Your task to perform on an android device: Google the capital of Venezuela Image 0: 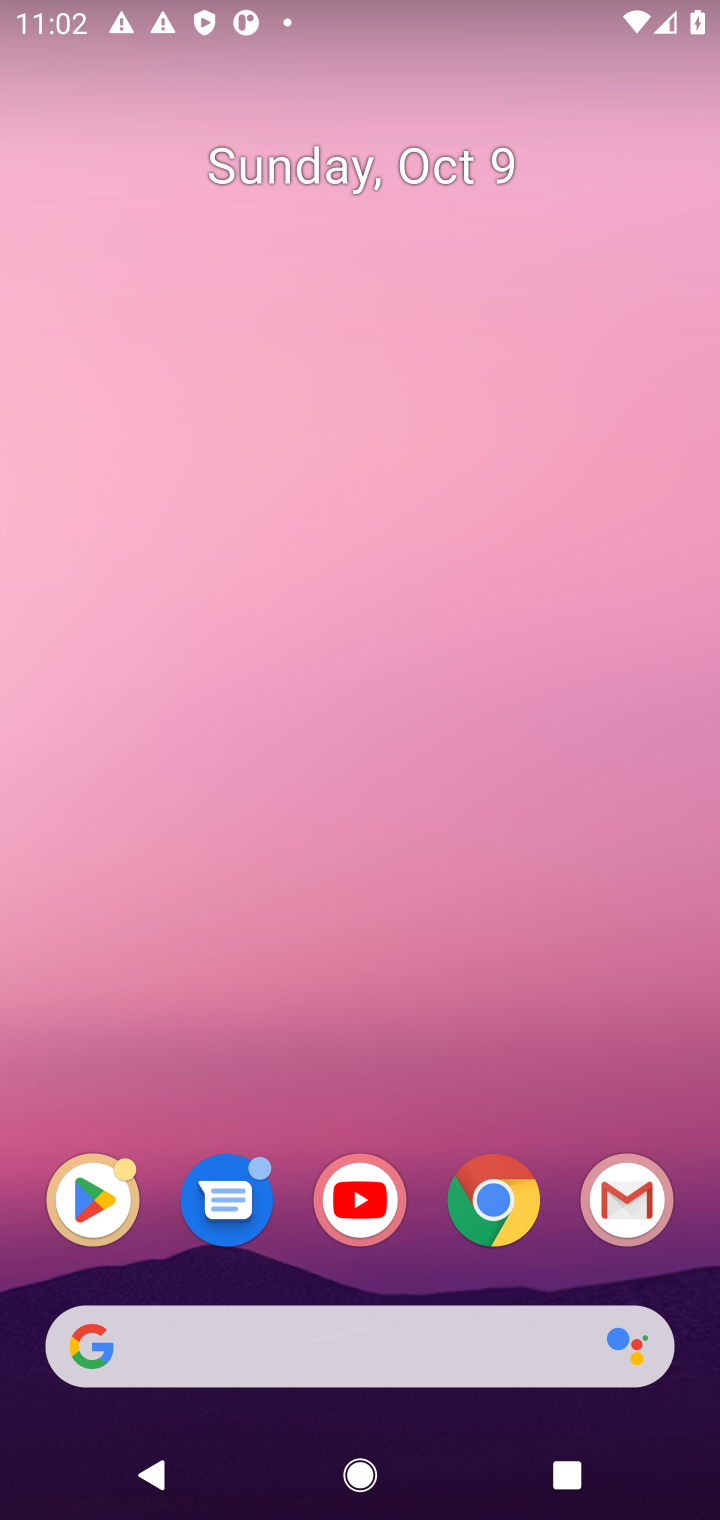
Step 0: click (479, 1196)
Your task to perform on an android device: Google the capital of Venezuela Image 1: 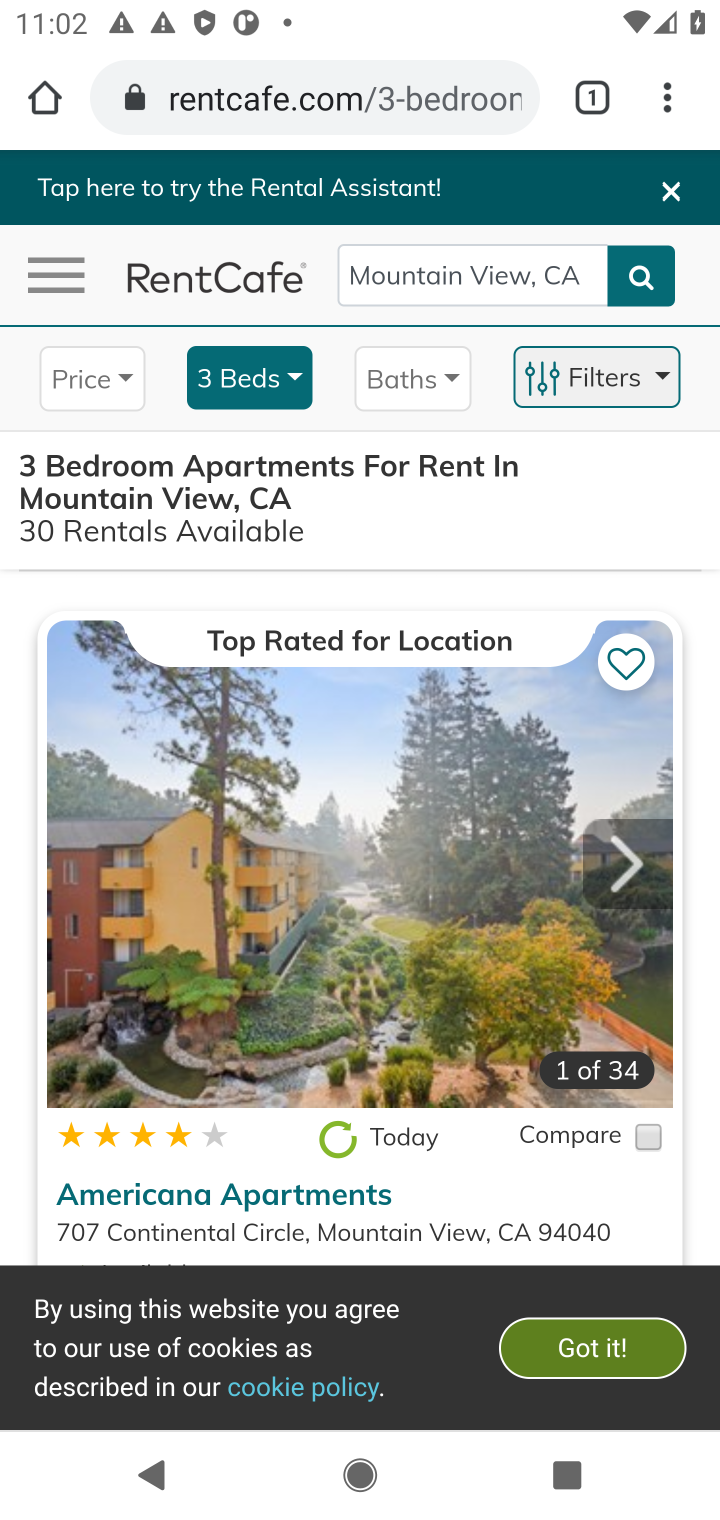
Step 1: click (360, 87)
Your task to perform on an android device: Google the capital of Venezuela Image 2: 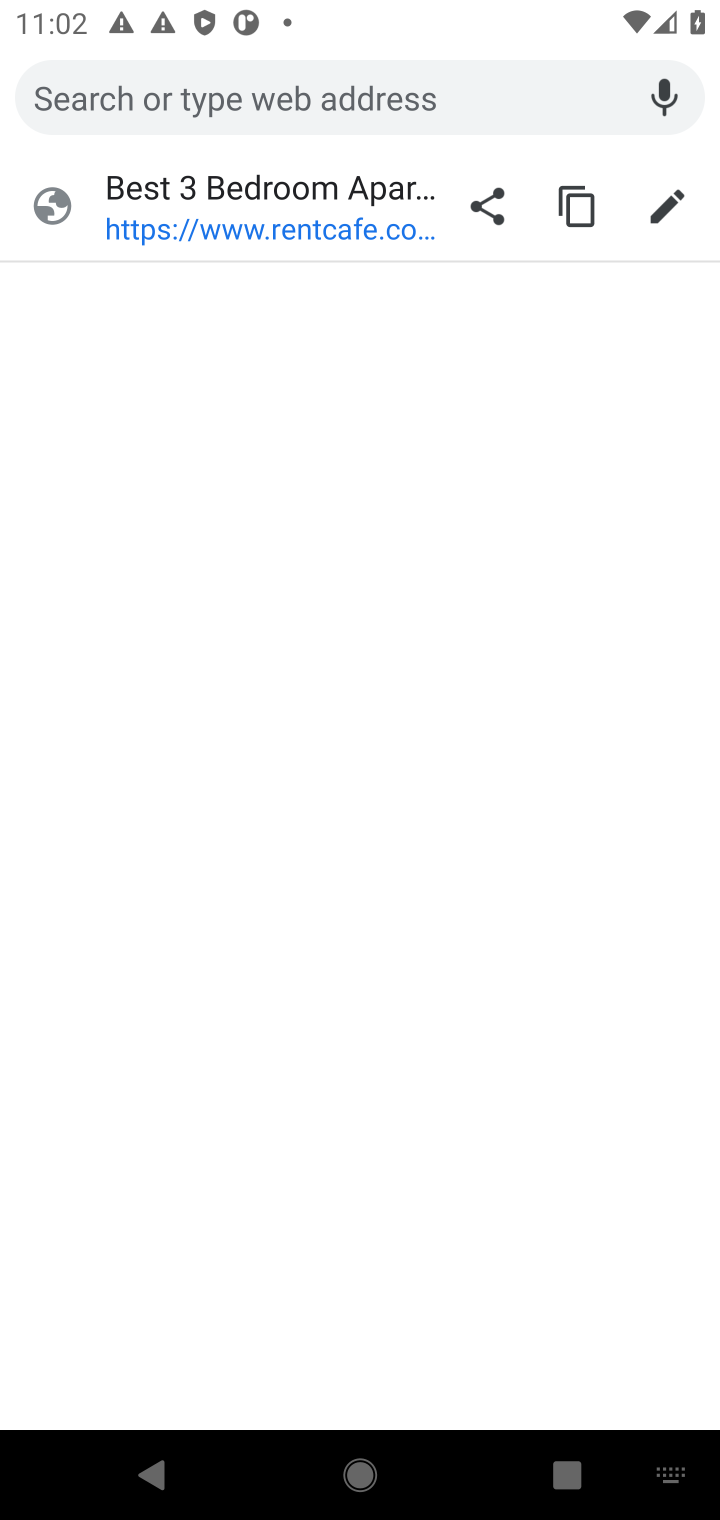
Step 2: type "capital of venezuela"
Your task to perform on an android device: Google the capital of Venezuela Image 3: 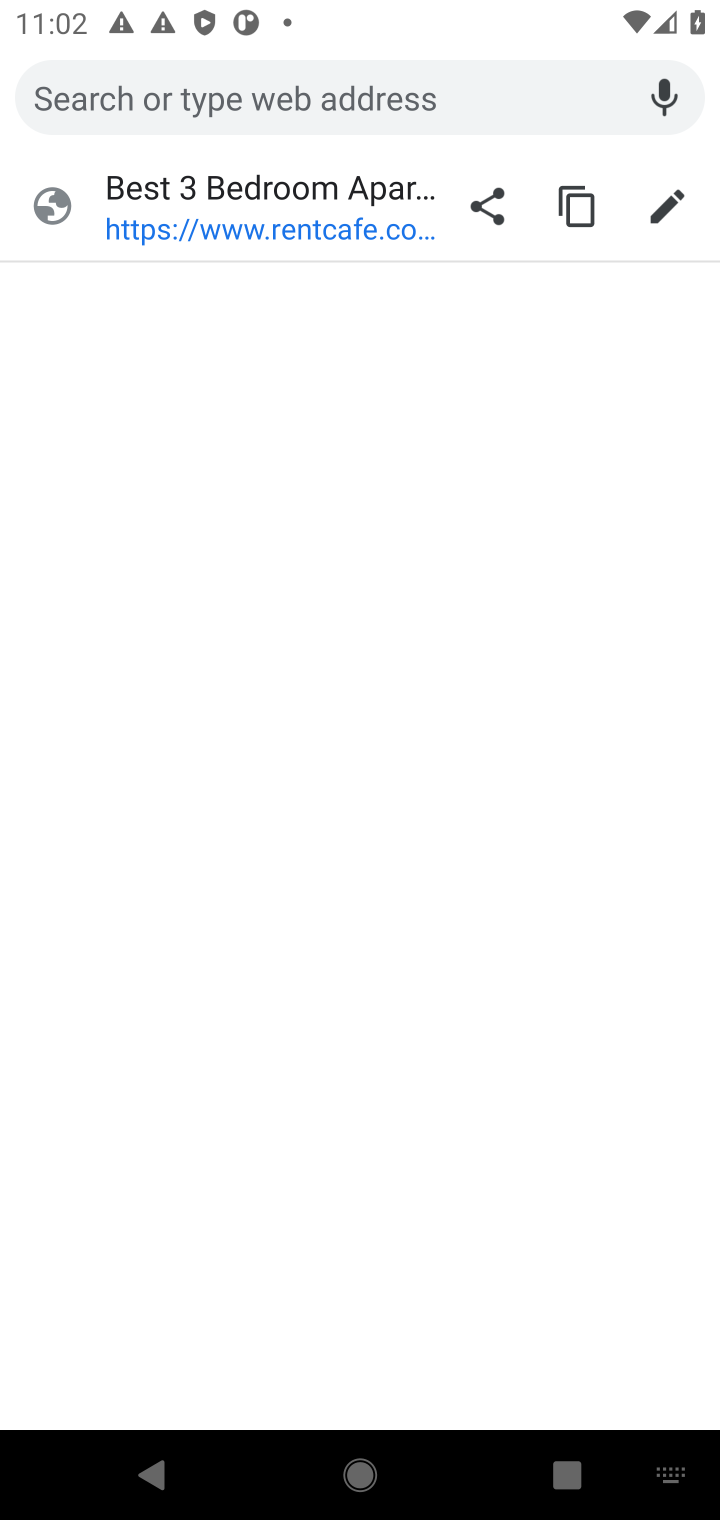
Step 3: click (483, 96)
Your task to perform on an android device: Google the capital of Venezuela Image 4: 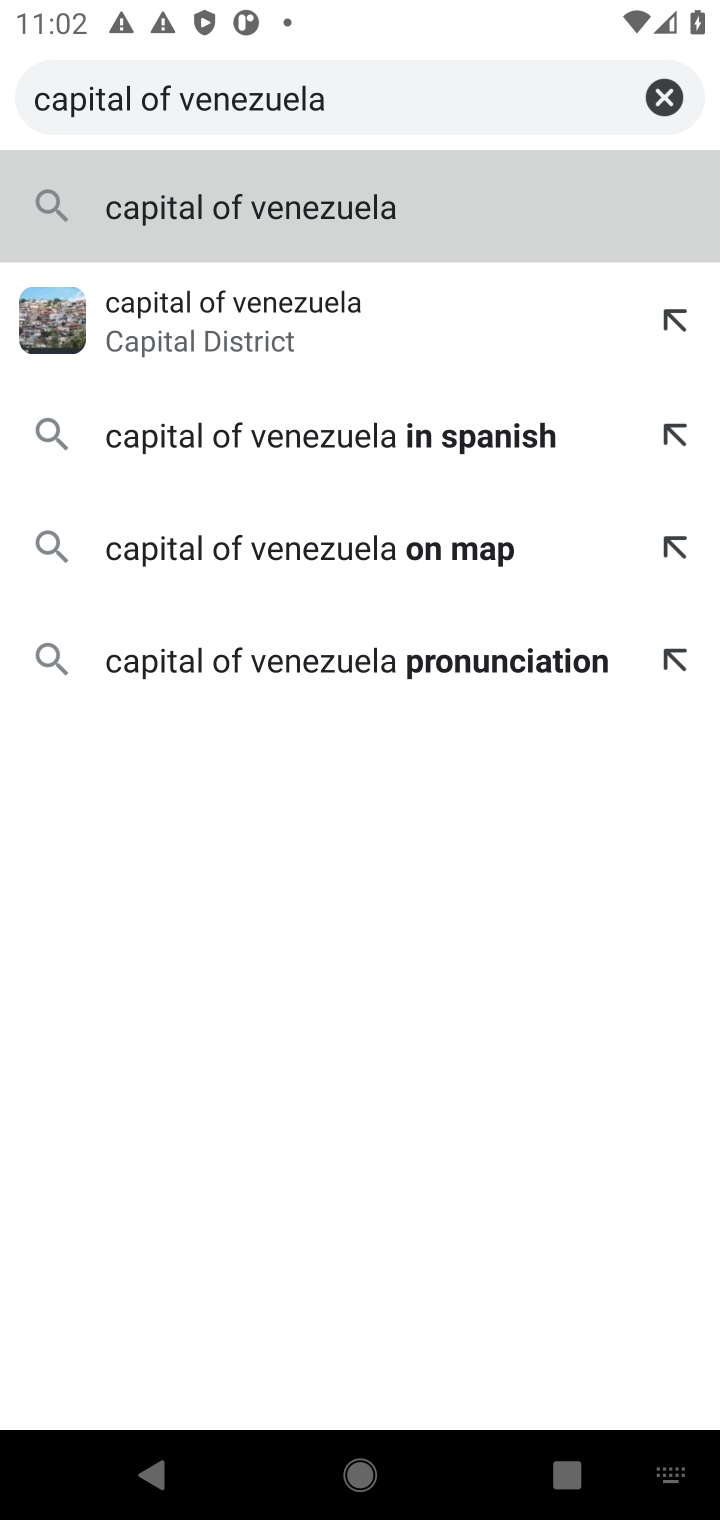
Step 4: click (408, 110)
Your task to perform on an android device: Google the capital of Venezuela Image 5: 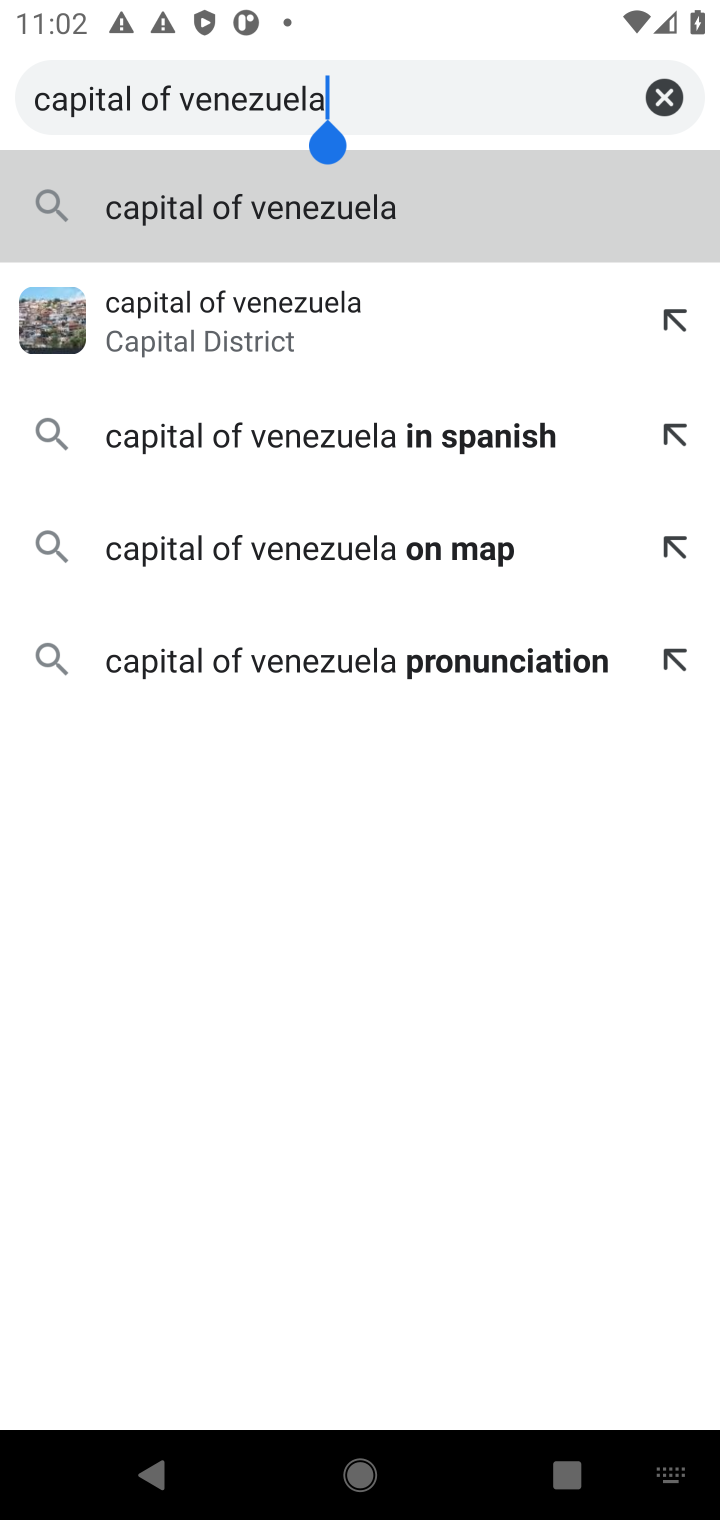
Step 5: click (376, 202)
Your task to perform on an android device: Google the capital of Venezuela Image 6: 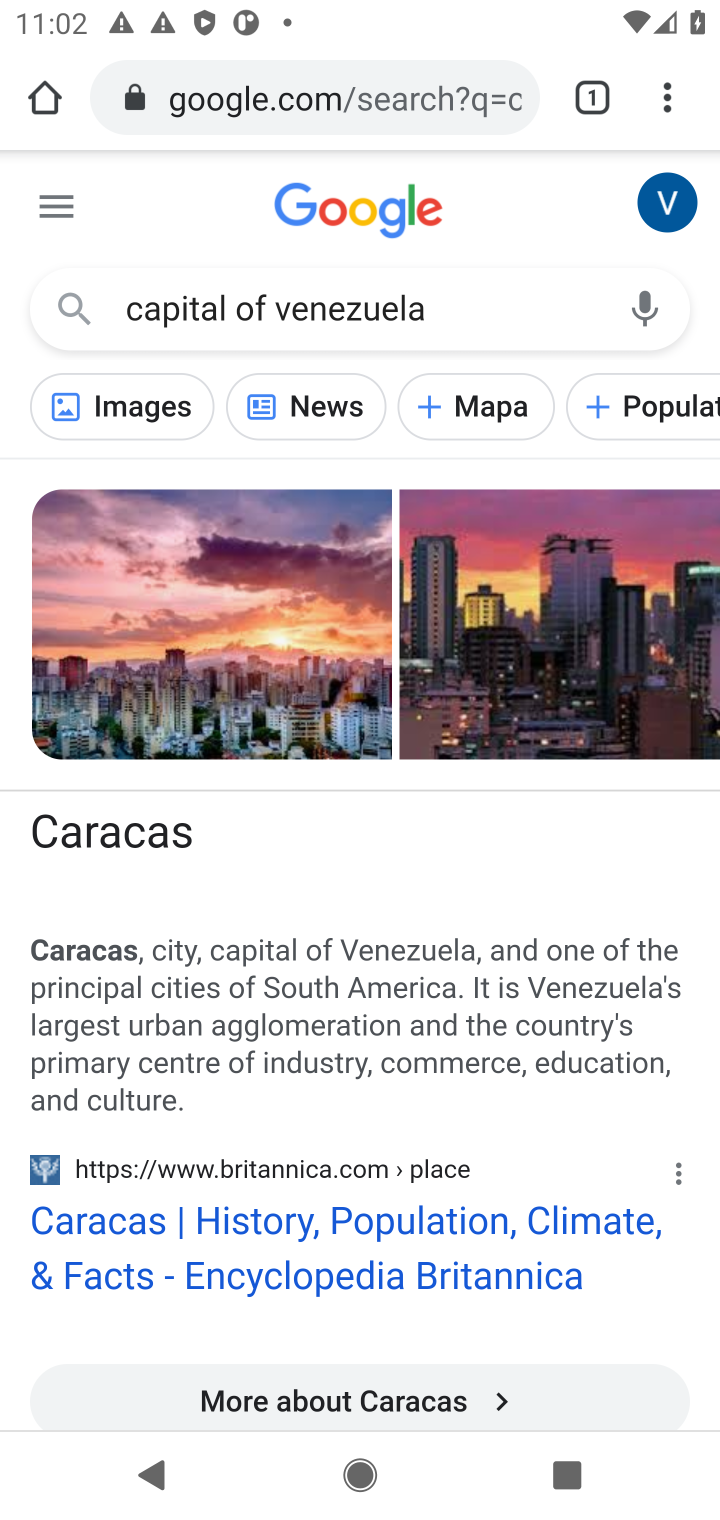
Step 6: task complete